Your task to perform on an android device: Open CNN.com Image 0: 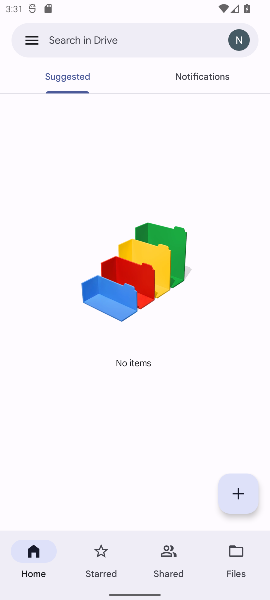
Step 0: press home button
Your task to perform on an android device: Open CNN.com Image 1: 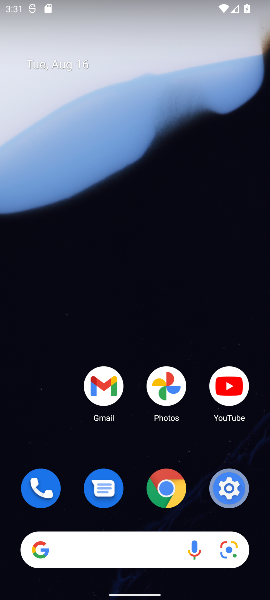
Step 1: click (176, 495)
Your task to perform on an android device: Open CNN.com Image 2: 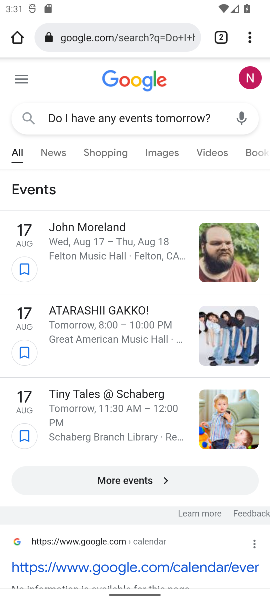
Step 2: click (165, 32)
Your task to perform on an android device: Open CNN.com Image 3: 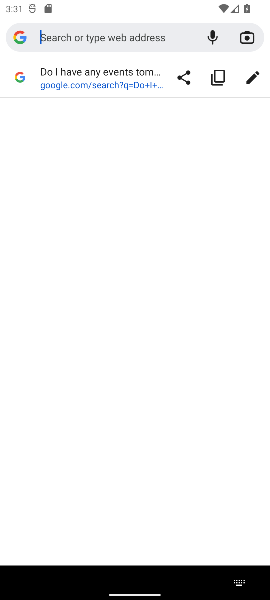
Step 3: type "CNN.com"
Your task to perform on an android device: Open CNN.com Image 4: 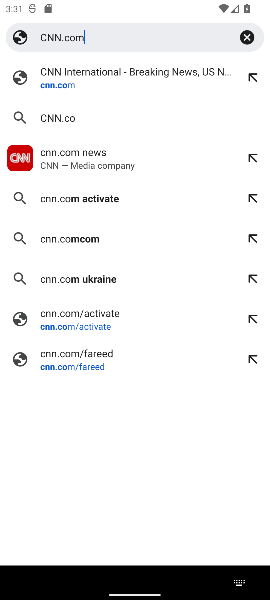
Step 4: press enter
Your task to perform on an android device: Open CNN.com Image 5: 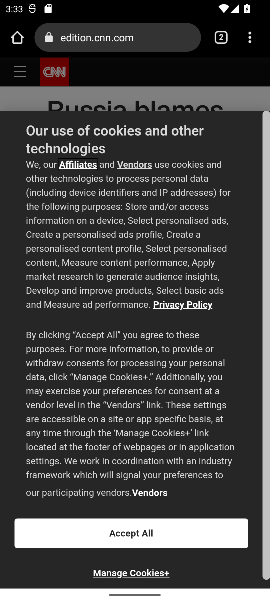
Step 5: press home button
Your task to perform on an android device: Open CNN.com Image 6: 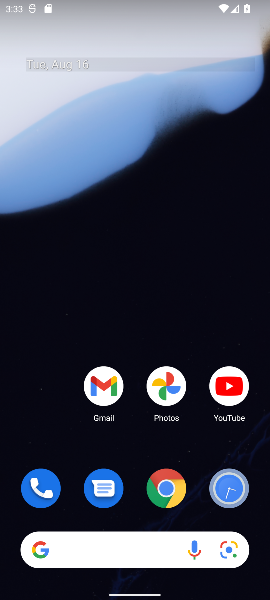
Step 6: click (157, 552)
Your task to perform on an android device: Open CNN.com Image 7: 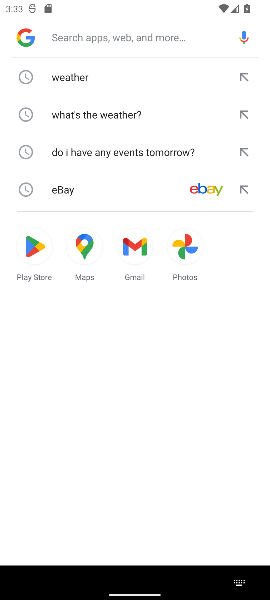
Step 7: press enter
Your task to perform on an android device: Open CNN.com Image 8: 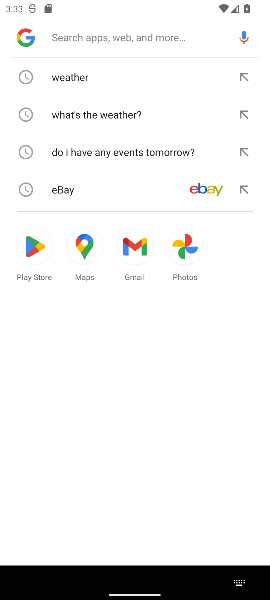
Step 8: type "CNN.com"
Your task to perform on an android device: Open CNN.com Image 9: 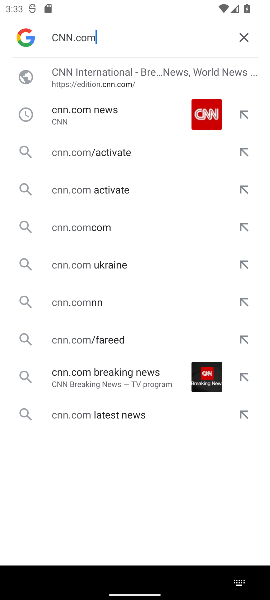
Step 9: task complete